Your task to perform on an android device: turn off improve location accuracy Image 0: 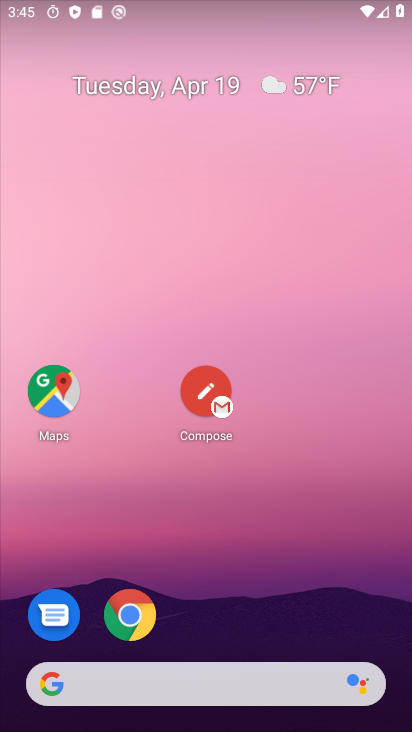
Step 0: drag from (266, 676) to (237, 113)
Your task to perform on an android device: turn off improve location accuracy Image 1: 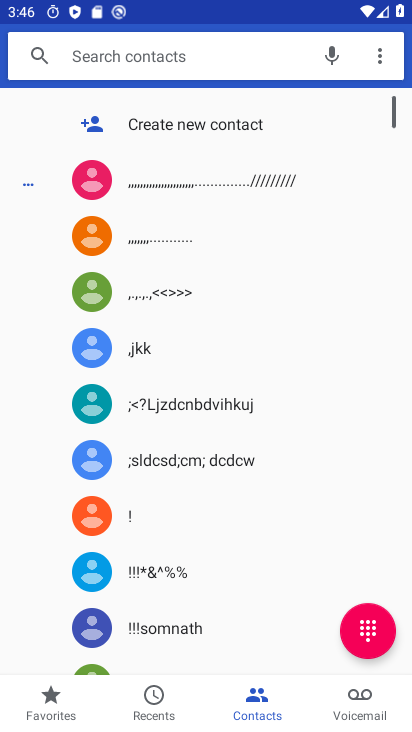
Step 1: press home button
Your task to perform on an android device: turn off improve location accuracy Image 2: 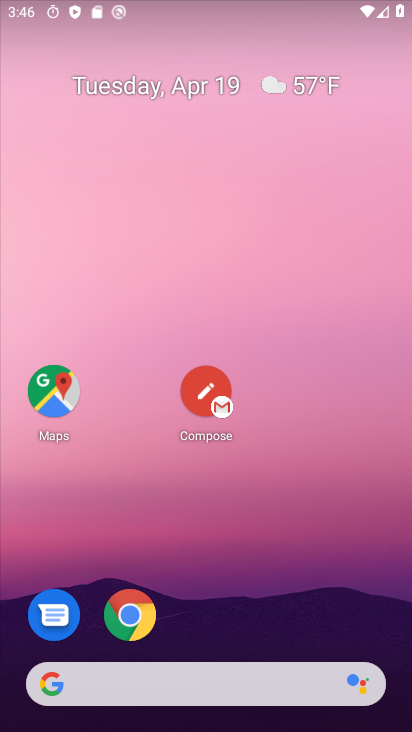
Step 2: drag from (284, 562) to (281, 43)
Your task to perform on an android device: turn off improve location accuracy Image 3: 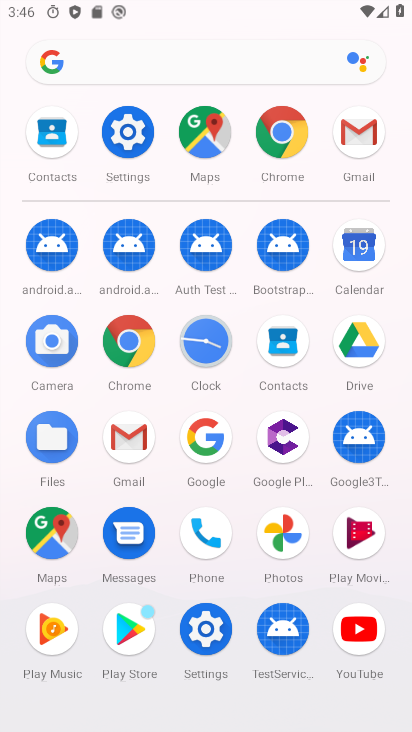
Step 3: click (203, 628)
Your task to perform on an android device: turn off improve location accuracy Image 4: 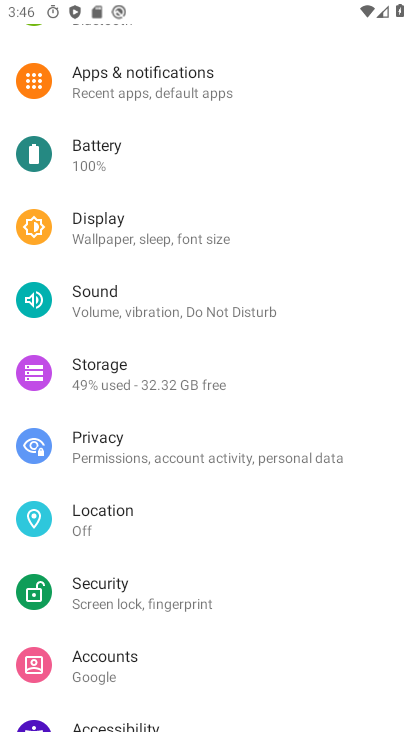
Step 4: click (188, 525)
Your task to perform on an android device: turn off improve location accuracy Image 5: 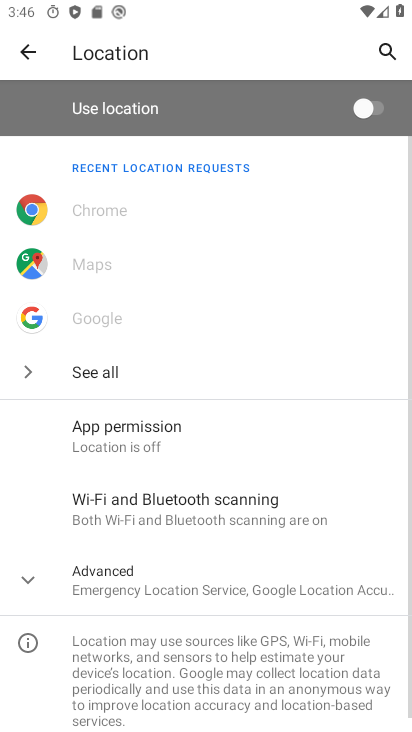
Step 5: drag from (236, 704) to (215, 123)
Your task to perform on an android device: turn off improve location accuracy Image 6: 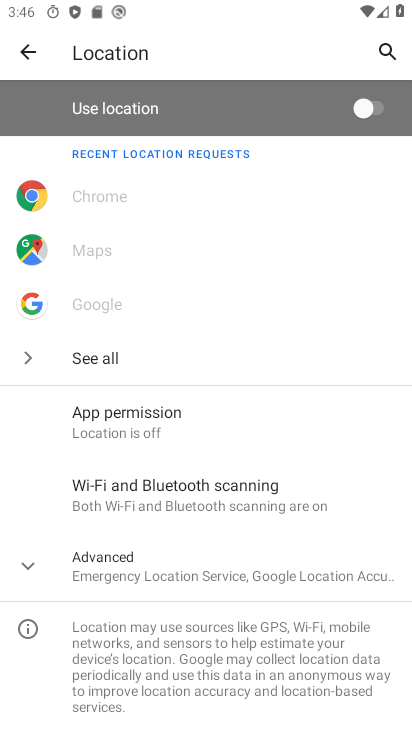
Step 6: click (212, 572)
Your task to perform on an android device: turn off improve location accuracy Image 7: 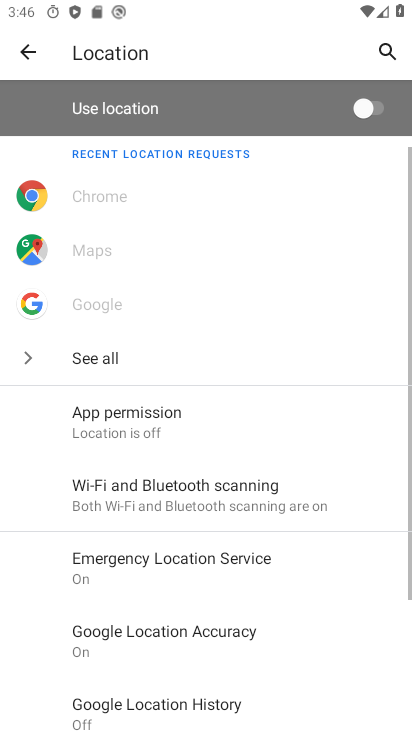
Step 7: drag from (249, 600) to (255, 311)
Your task to perform on an android device: turn off improve location accuracy Image 8: 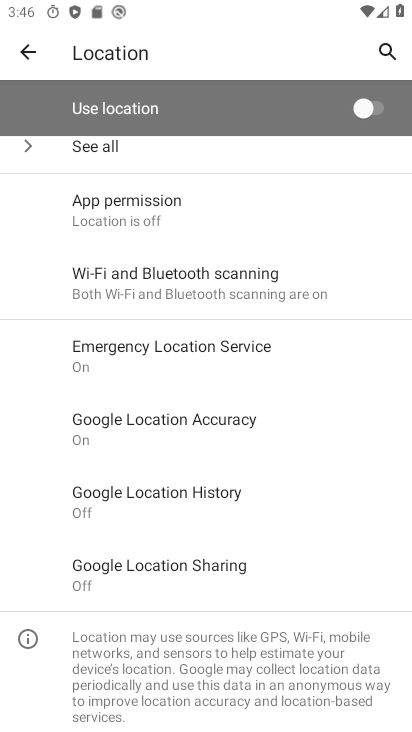
Step 8: click (233, 434)
Your task to perform on an android device: turn off improve location accuracy Image 9: 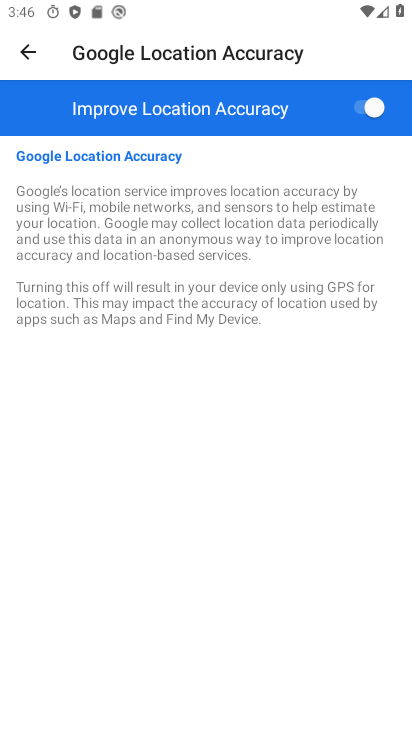
Step 9: click (362, 106)
Your task to perform on an android device: turn off improve location accuracy Image 10: 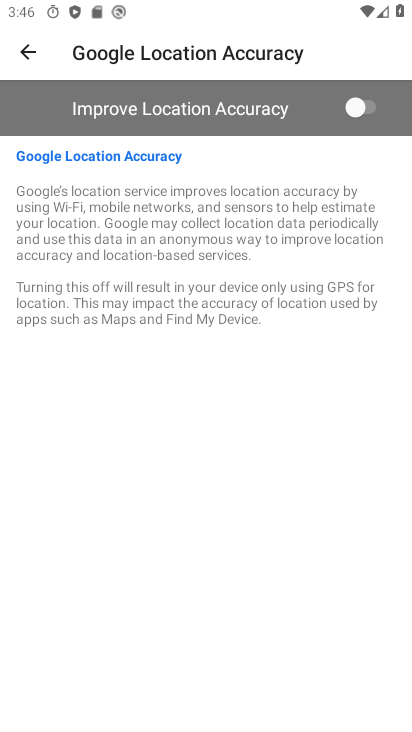
Step 10: task complete